Your task to perform on an android device: toggle pop-ups in chrome Image 0: 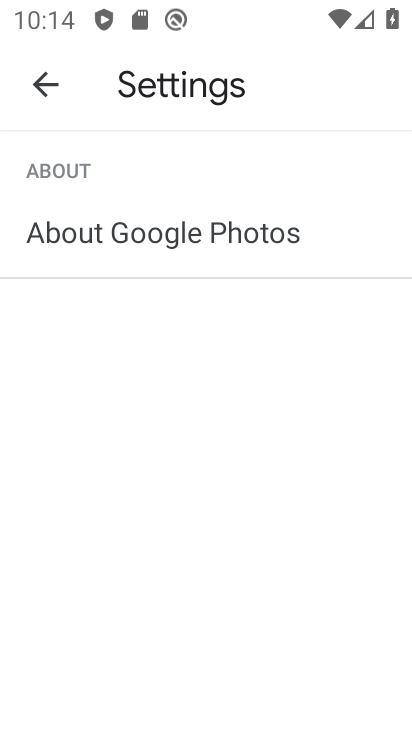
Step 0: press home button
Your task to perform on an android device: toggle pop-ups in chrome Image 1: 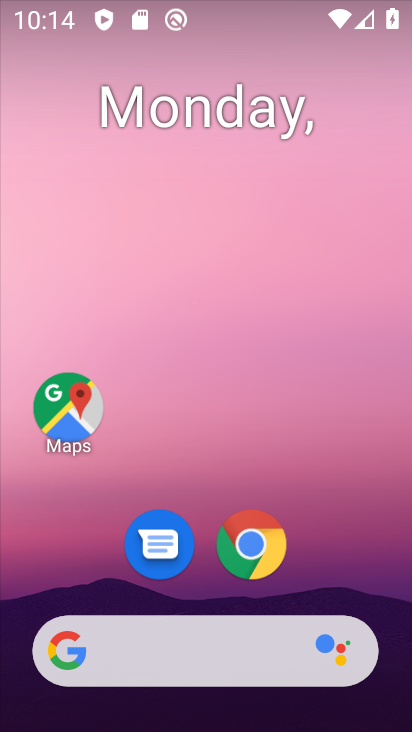
Step 1: click (271, 560)
Your task to perform on an android device: toggle pop-ups in chrome Image 2: 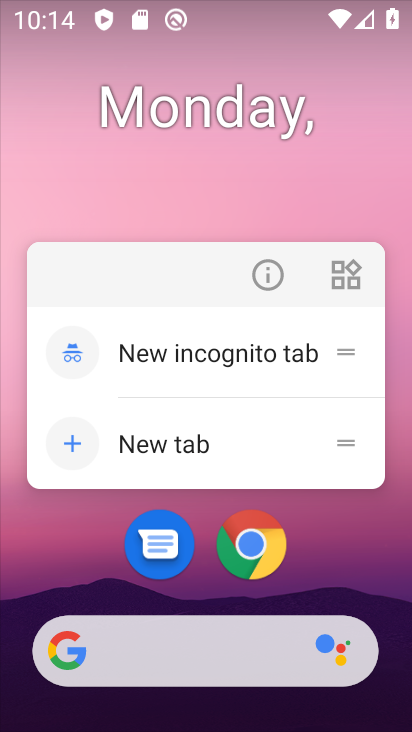
Step 2: click (270, 558)
Your task to perform on an android device: toggle pop-ups in chrome Image 3: 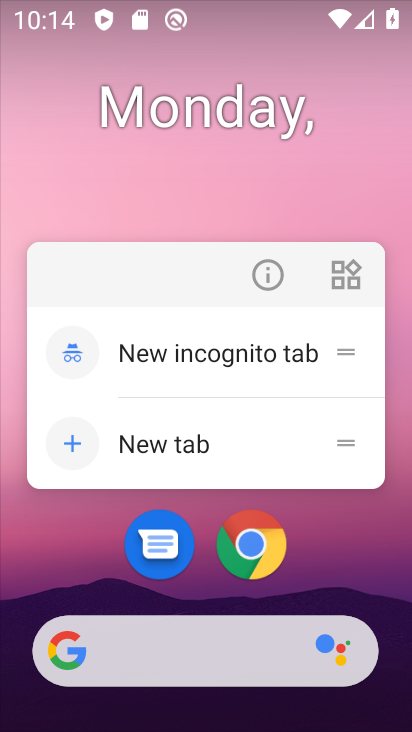
Step 3: click (262, 543)
Your task to perform on an android device: toggle pop-ups in chrome Image 4: 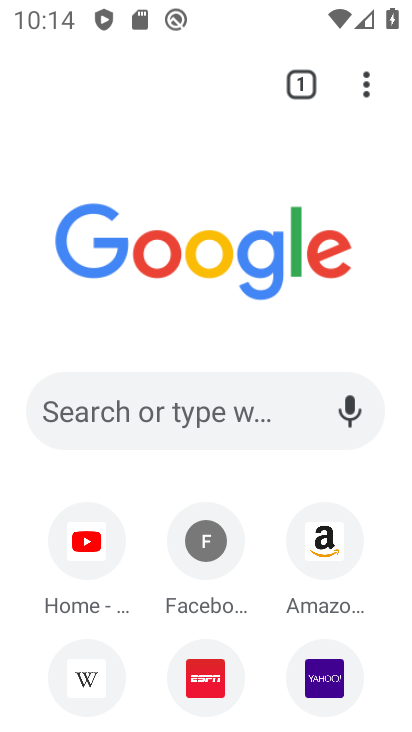
Step 4: drag from (368, 79) to (275, 585)
Your task to perform on an android device: toggle pop-ups in chrome Image 5: 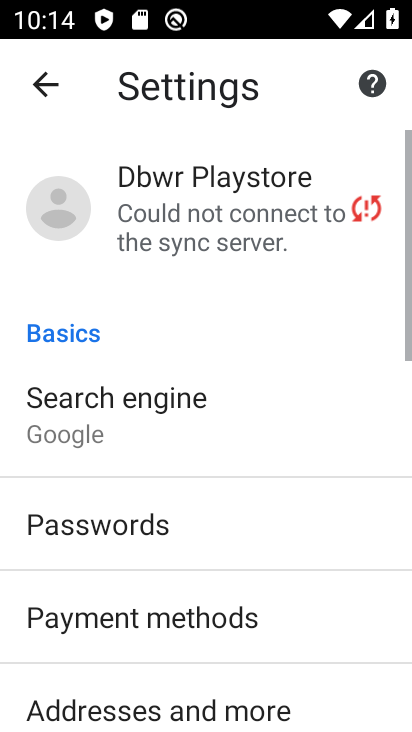
Step 5: drag from (211, 600) to (255, 260)
Your task to perform on an android device: toggle pop-ups in chrome Image 6: 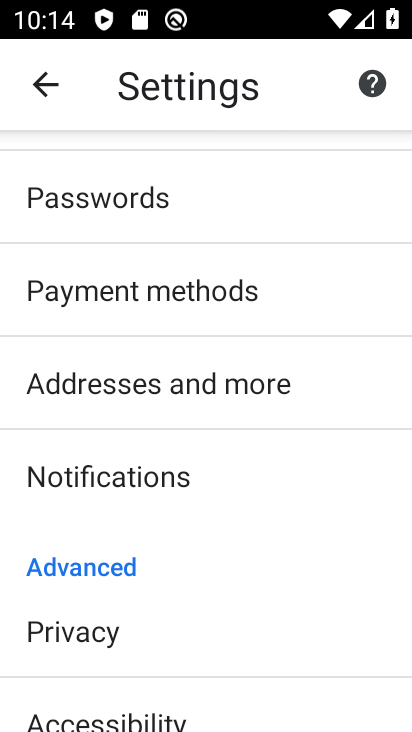
Step 6: drag from (200, 643) to (253, 298)
Your task to perform on an android device: toggle pop-ups in chrome Image 7: 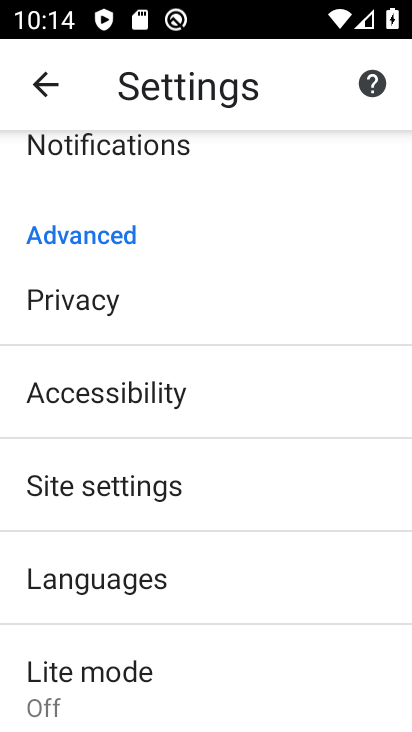
Step 7: click (175, 497)
Your task to perform on an android device: toggle pop-ups in chrome Image 8: 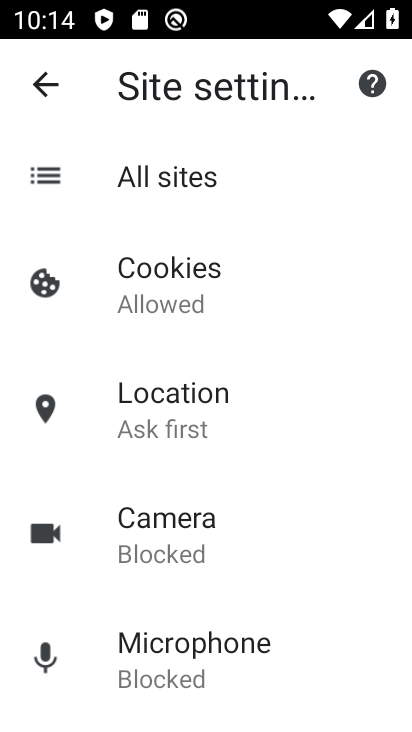
Step 8: drag from (186, 412) to (260, 194)
Your task to perform on an android device: toggle pop-ups in chrome Image 9: 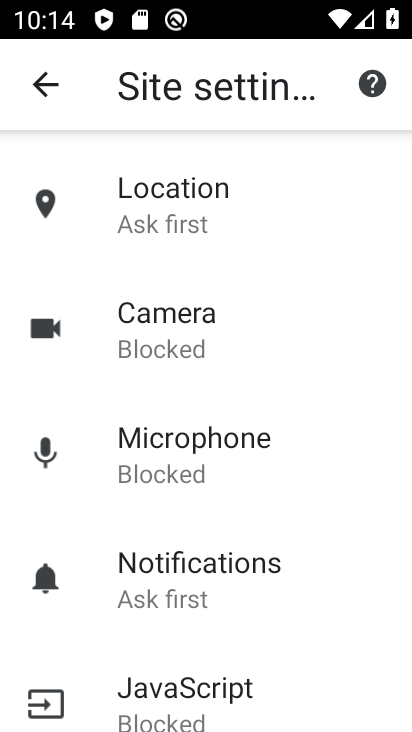
Step 9: drag from (196, 675) to (286, 353)
Your task to perform on an android device: toggle pop-ups in chrome Image 10: 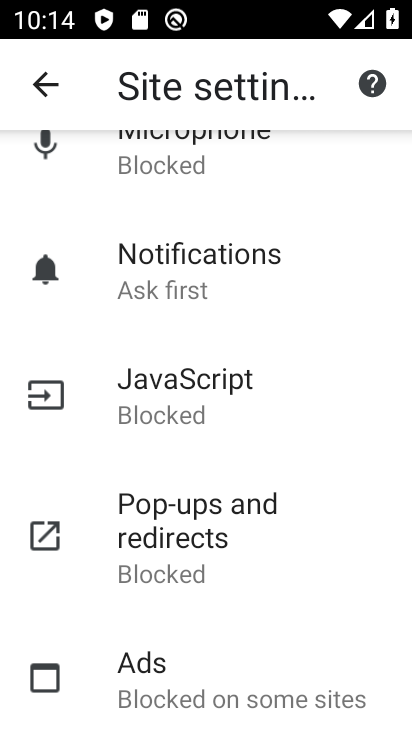
Step 10: click (256, 518)
Your task to perform on an android device: toggle pop-ups in chrome Image 11: 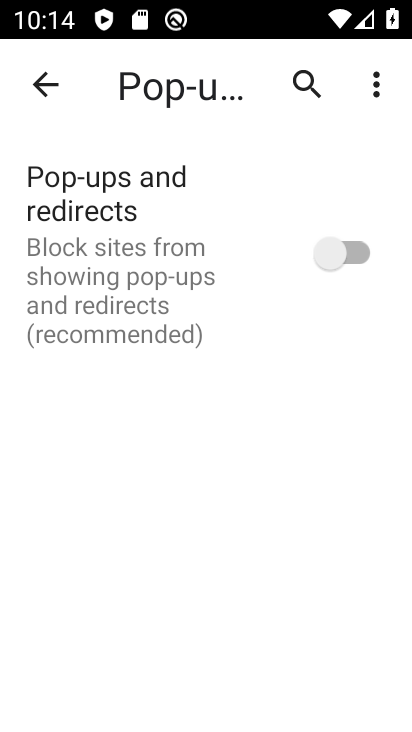
Step 11: click (376, 252)
Your task to perform on an android device: toggle pop-ups in chrome Image 12: 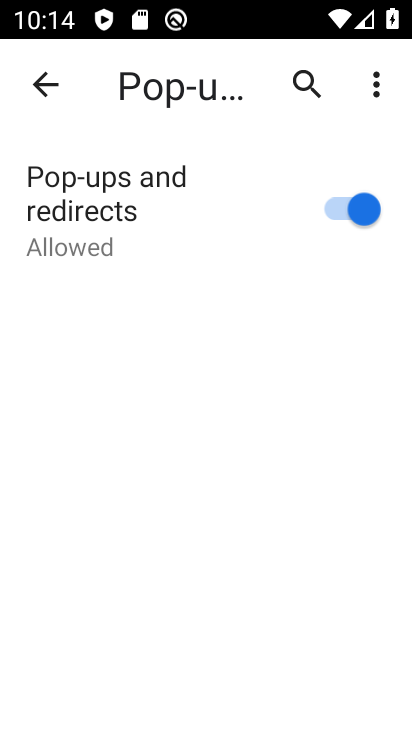
Step 12: task complete